Your task to perform on an android device: Go to Android settings Image 0: 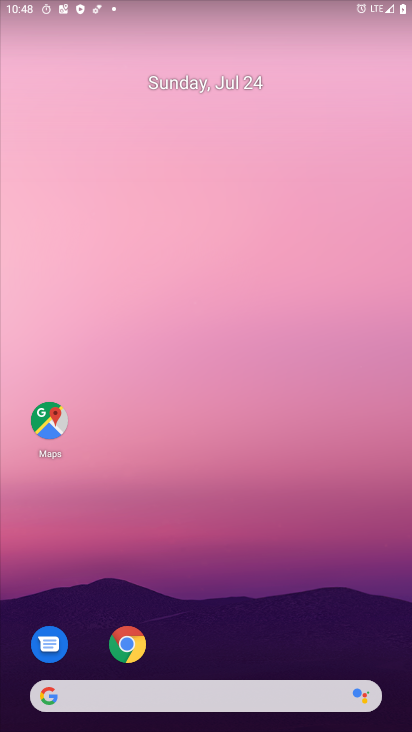
Step 0: drag from (198, 702) to (220, 272)
Your task to perform on an android device: Go to Android settings Image 1: 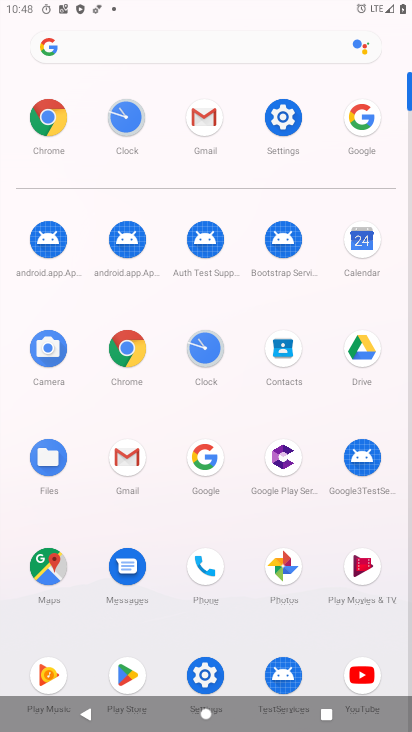
Step 1: click (285, 107)
Your task to perform on an android device: Go to Android settings Image 2: 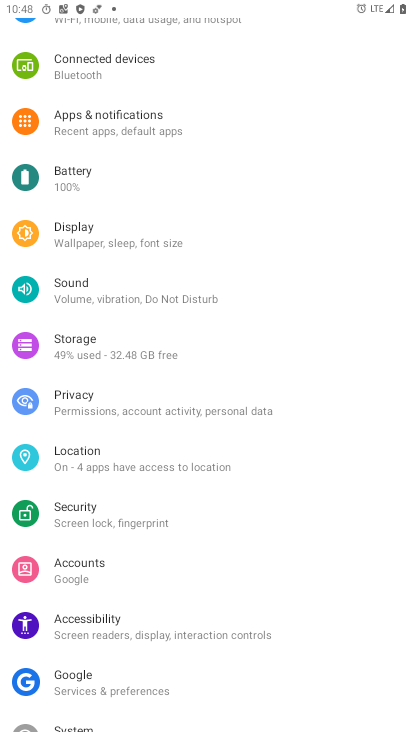
Step 2: task complete